Your task to perform on an android device: Open location settings Image 0: 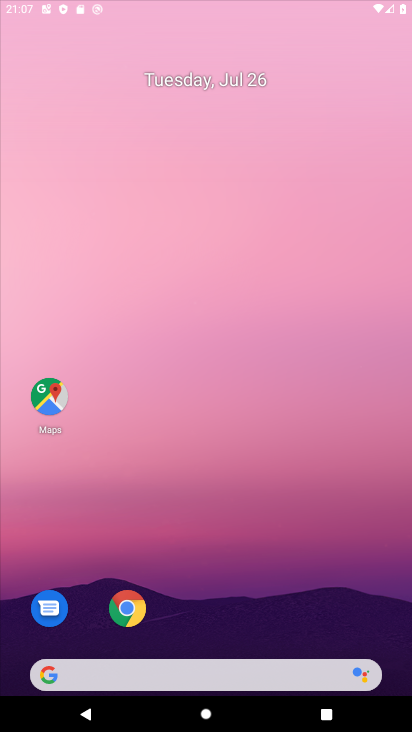
Step 0: click (126, 606)
Your task to perform on an android device: Open location settings Image 1: 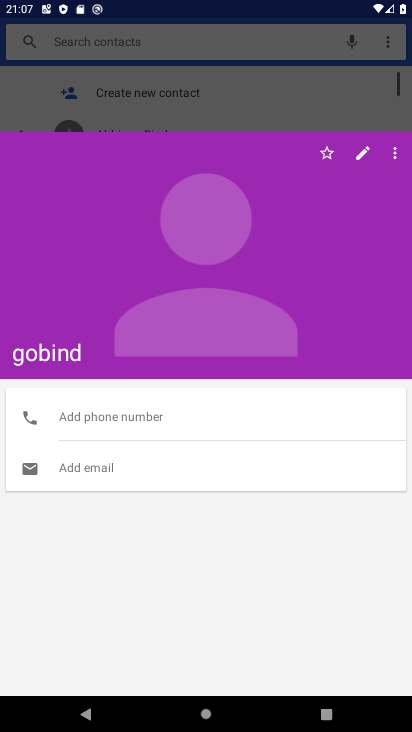
Step 1: task complete